Your task to perform on an android device: Open the Play Movies app and select the watchlist tab. Image 0: 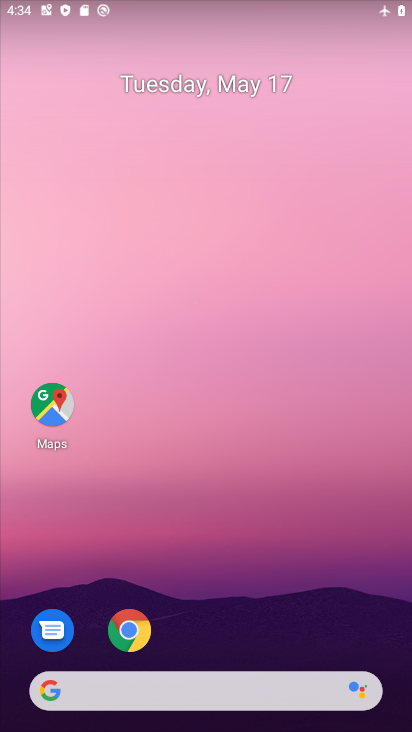
Step 0: drag from (227, 652) to (232, 159)
Your task to perform on an android device: Open the Play Movies app and select the watchlist tab. Image 1: 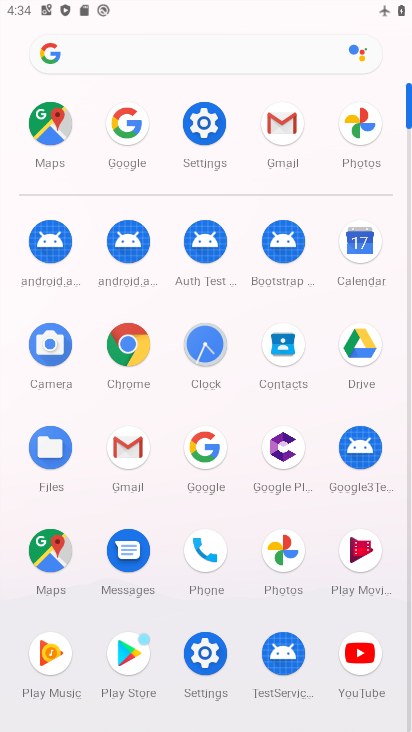
Step 1: click (349, 550)
Your task to perform on an android device: Open the Play Movies app and select the watchlist tab. Image 2: 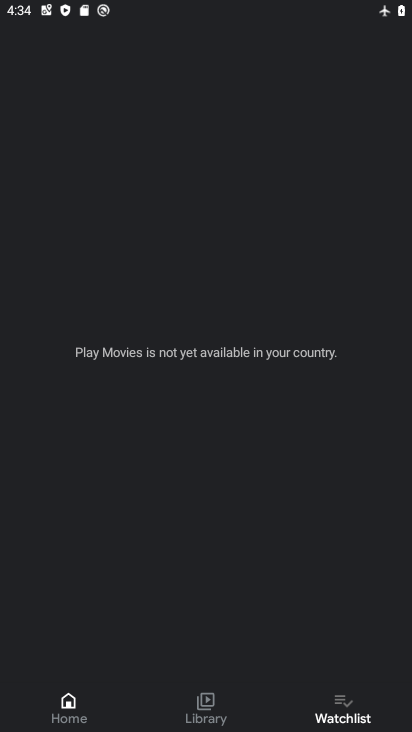
Step 2: task complete